Your task to perform on an android device: turn off wifi Image 0: 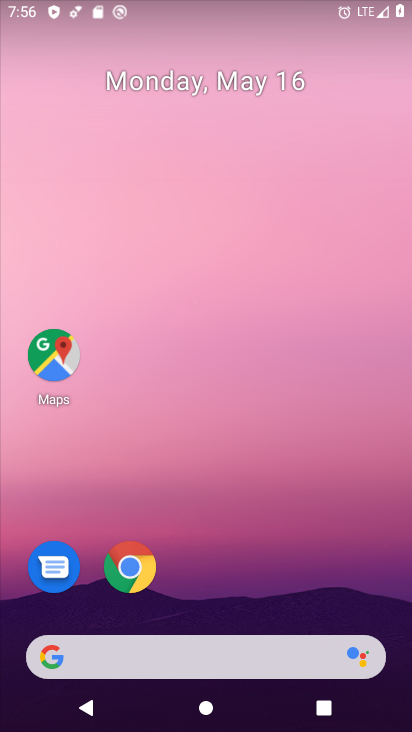
Step 0: drag from (214, 640) to (216, 322)
Your task to perform on an android device: turn off wifi Image 1: 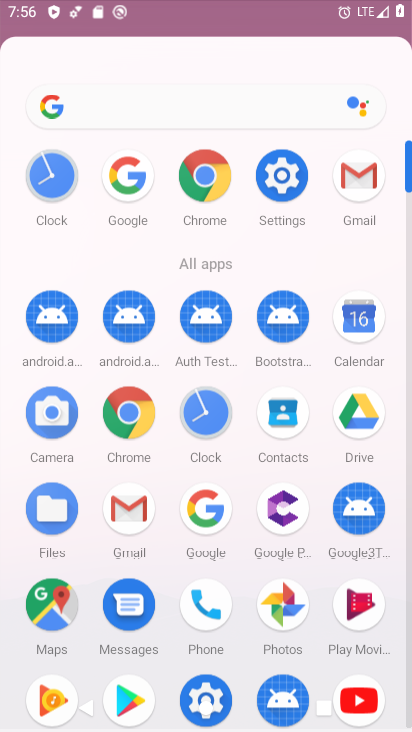
Step 1: drag from (156, 560) to (162, 223)
Your task to perform on an android device: turn off wifi Image 2: 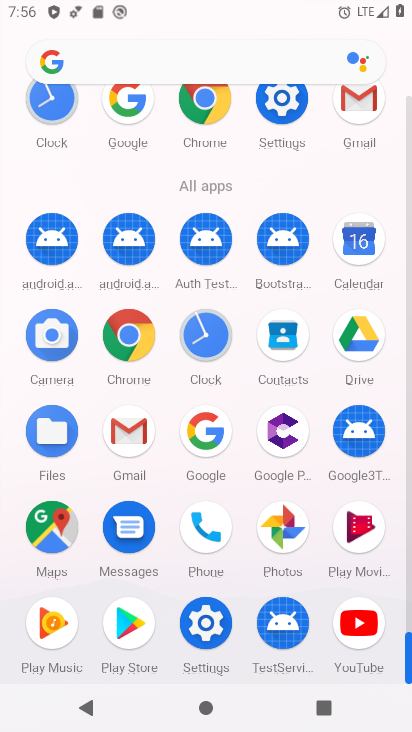
Step 2: click (281, 121)
Your task to perform on an android device: turn off wifi Image 3: 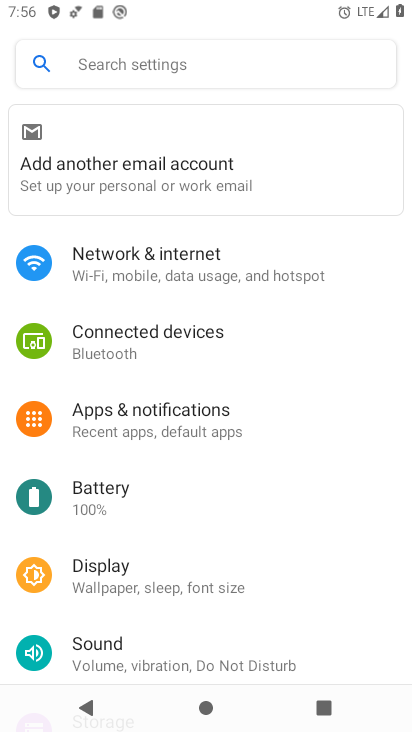
Step 3: click (163, 153)
Your task to perform on an android device: turn off wifi Image 4: 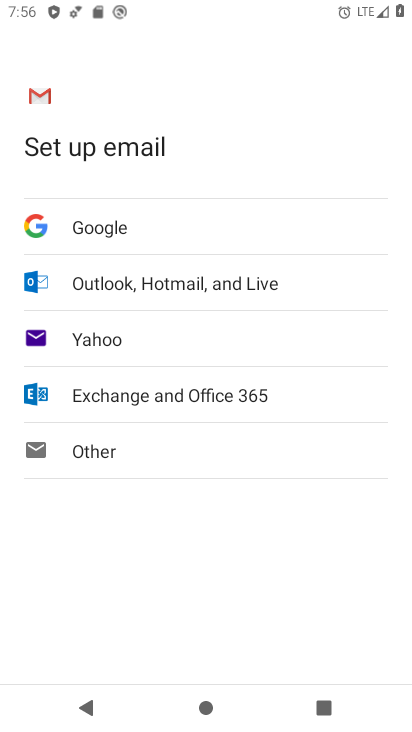
Step 4: press back button
Your task to perform on an android device: turn off wifi Image 5: 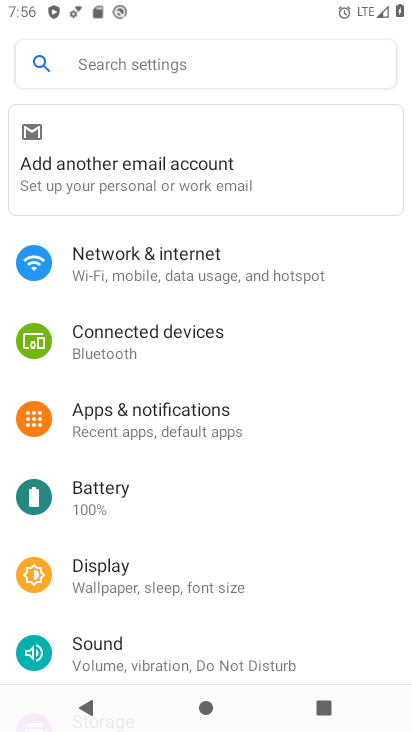
Step 5: click (141, 268)
Your task to perform on an android device: turn off wifi Image 6: 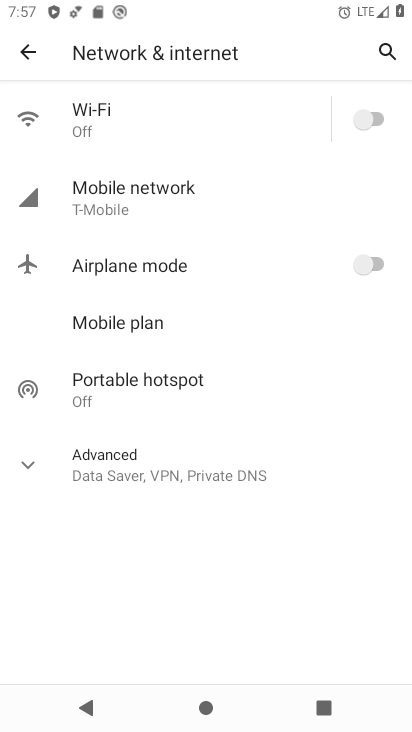
Step 6: task complete